Your task to perform on an android device: uninstall "PlayWell" Image 0: 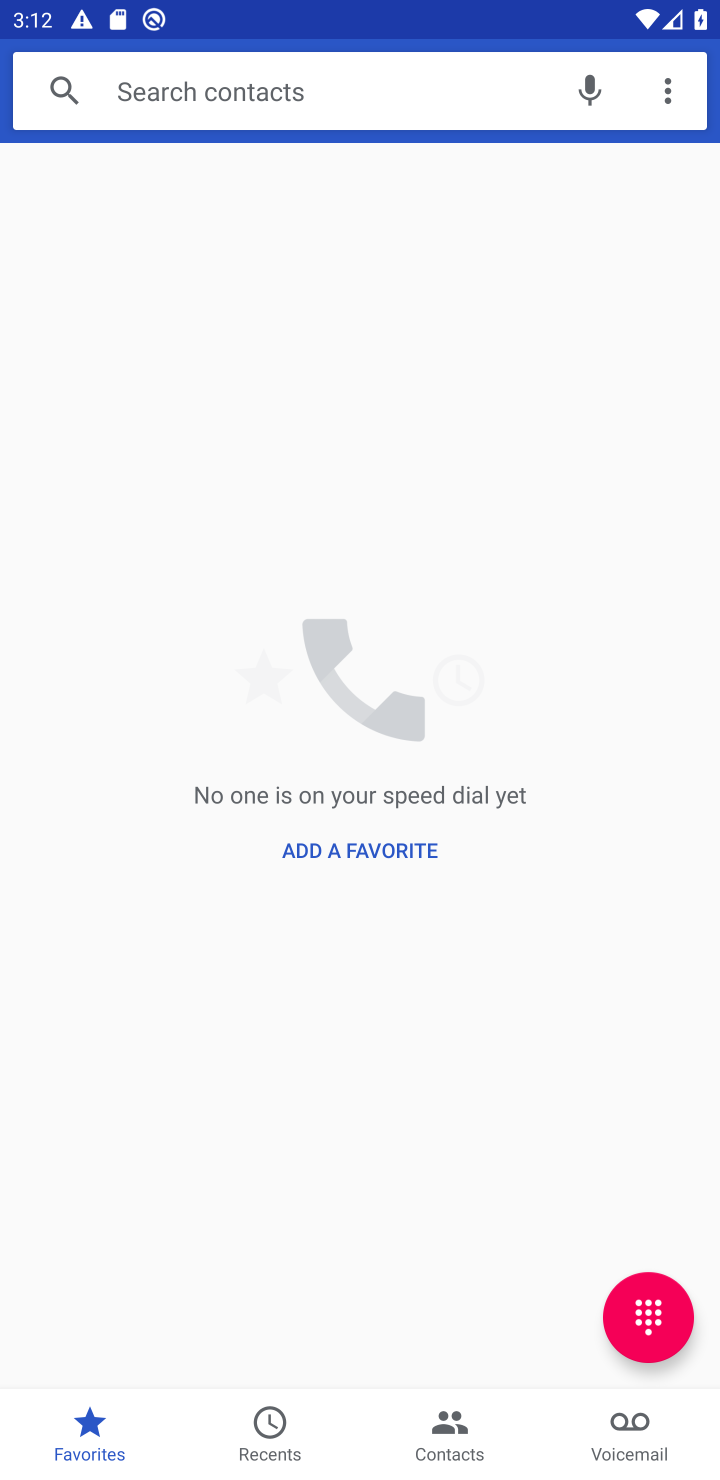
Step 0: press home button
Your task to perform on an android device: uninstall "PlayWell" Image 1: 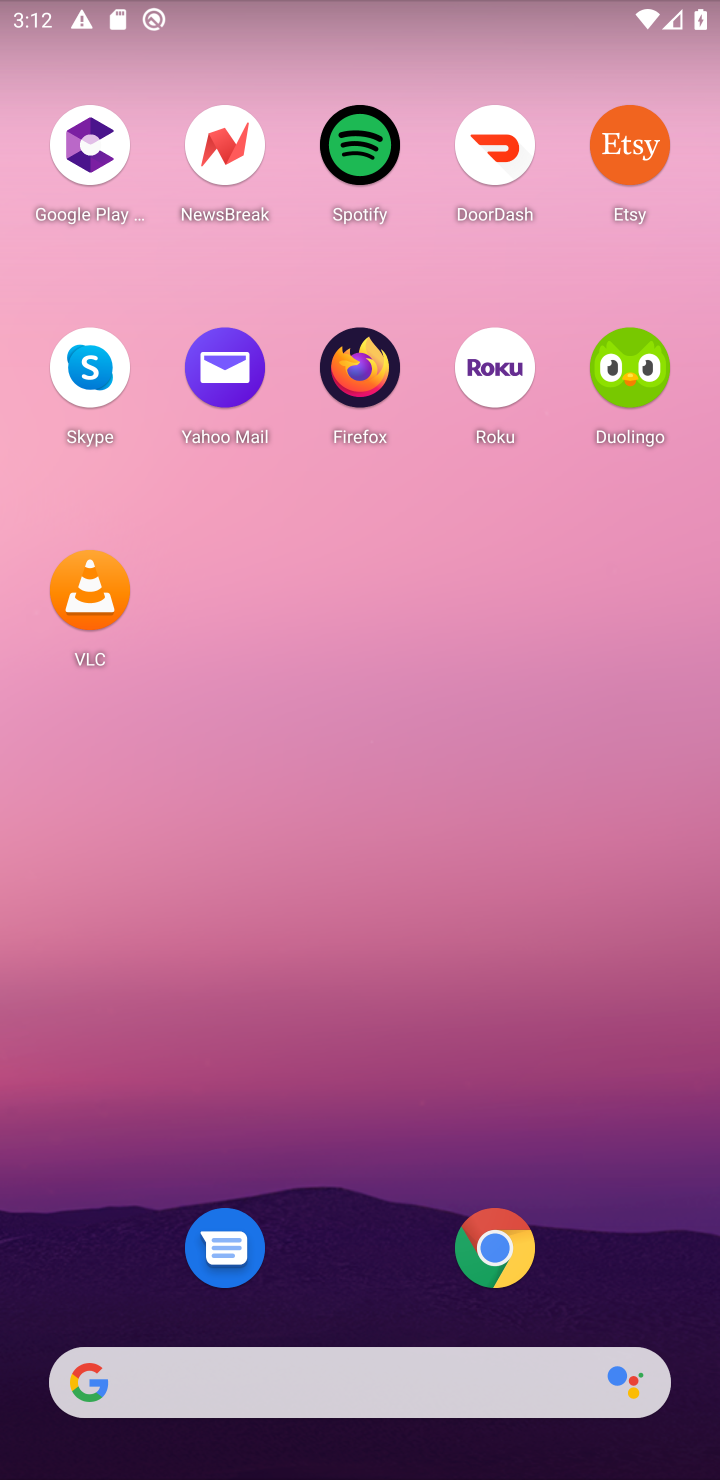
Step 1: drag from (348, 721) to (353, 299)
Your task to perform on an android device: uninstall "PlayWell" Image 2: 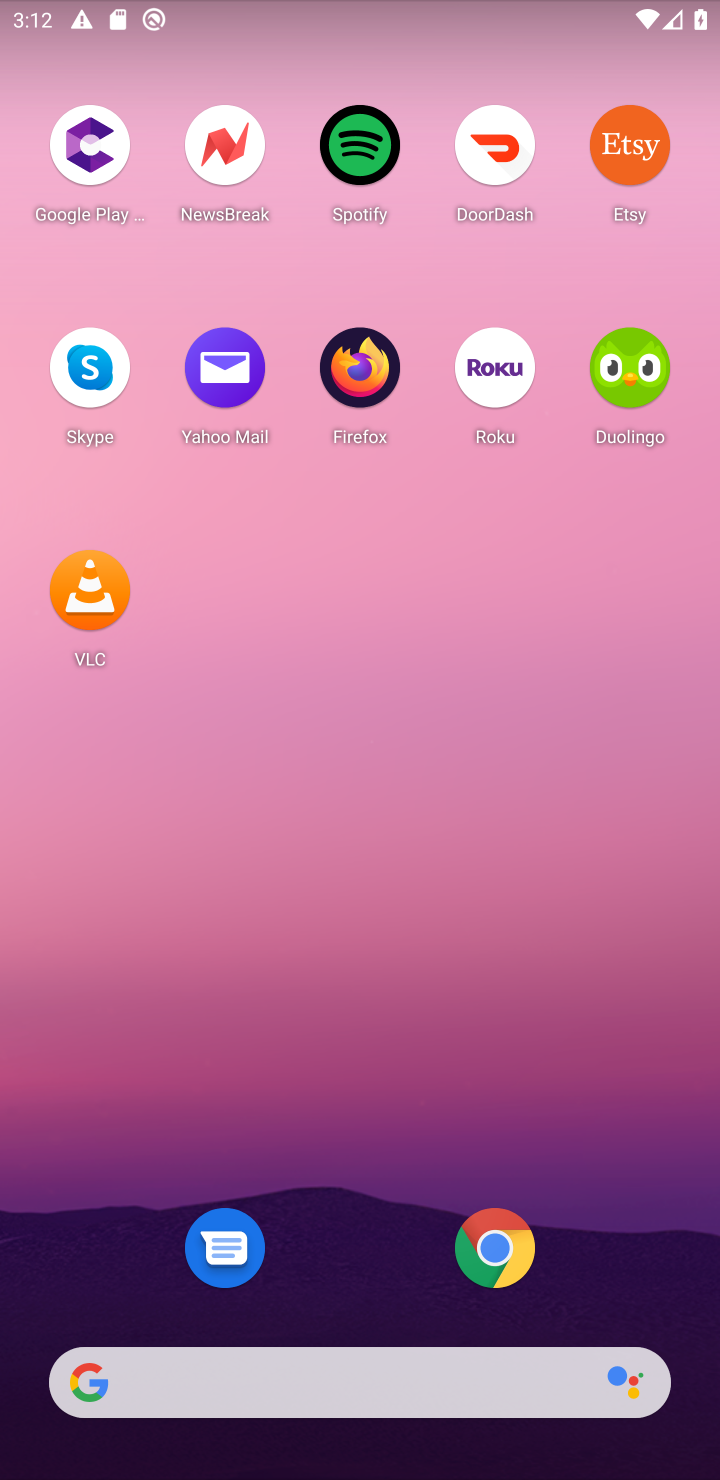
Step 2: drag from (365, 1252) to (349, 309)
Your task to perform on an android device: uninstall "PlayWell" Image 3: 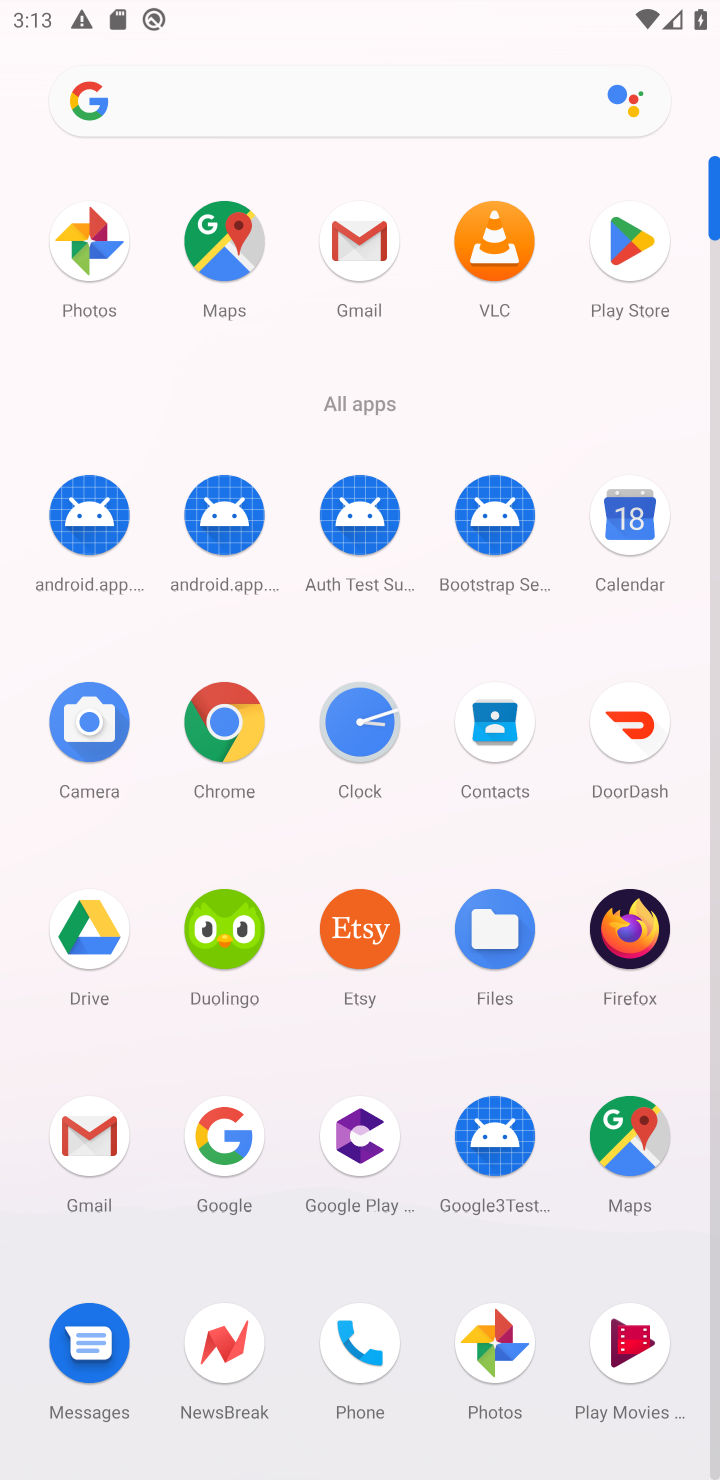
Step 3: click (632, 242)
Your task to perform on an android device: uninstall "PlayWell" Image 4: 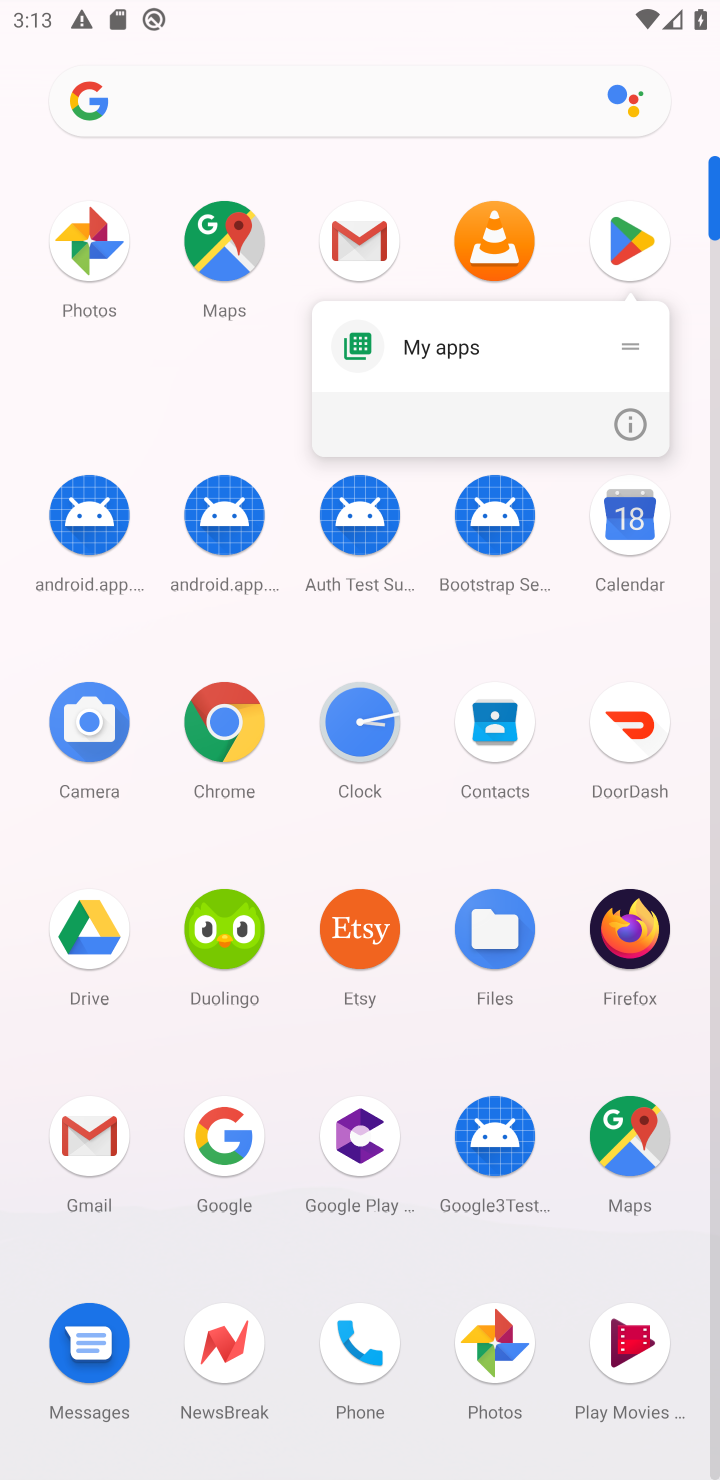
Step 4: click (632, 242)
Your task to perform on an android device: uninstall "PlayWell" Image 5: 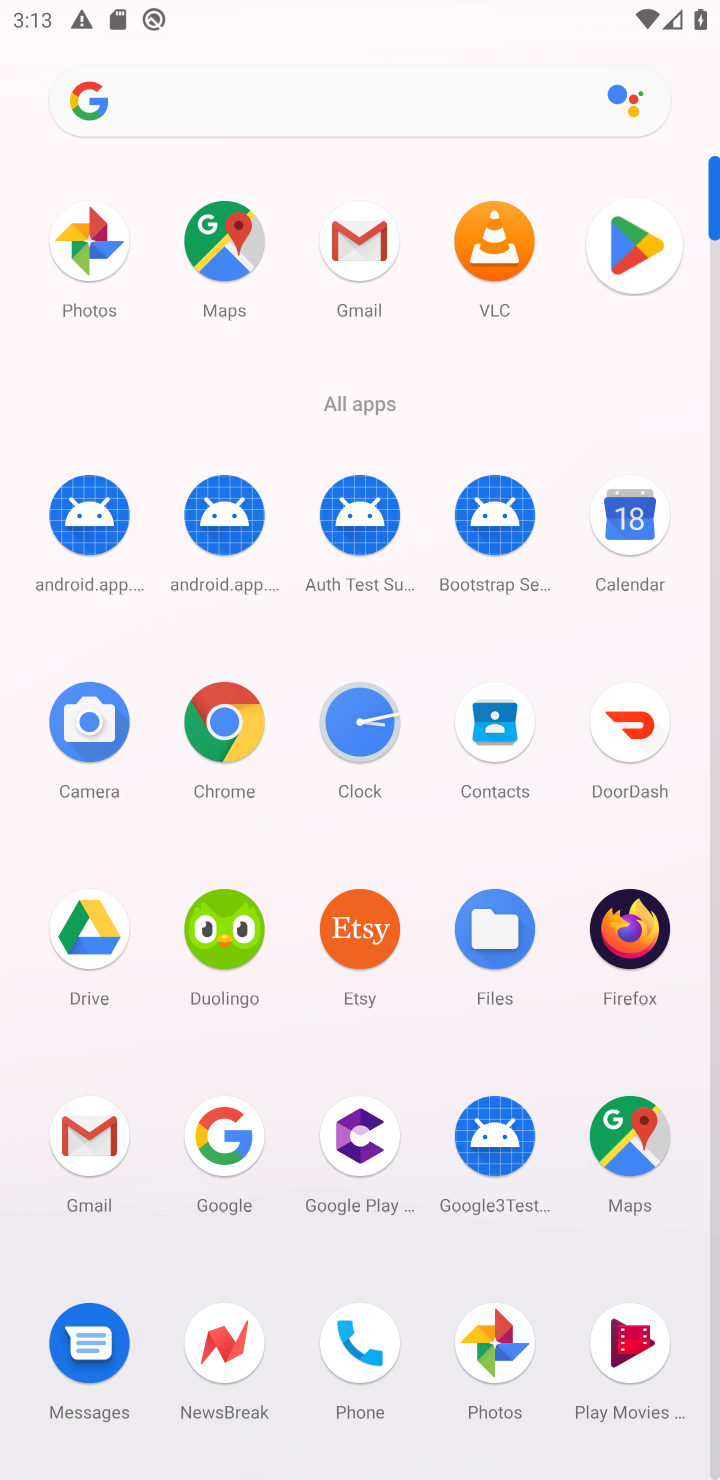
Step 5: click (630, 244)
Your task to perform on an android device: uninstall "PlayWell" Image 6: 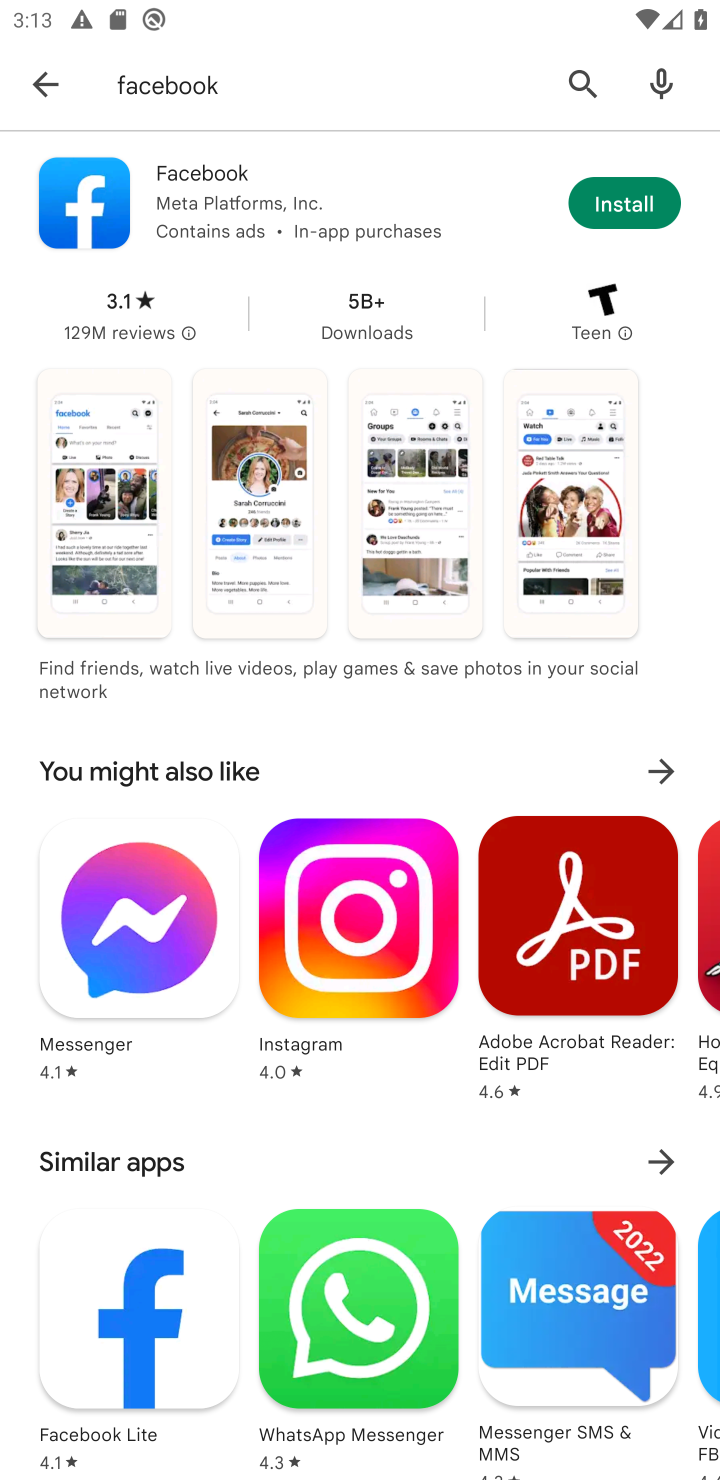
Step 6: click (576, 86)
Your task to perform on an android device: uninstall "PlayWell" Image 7: 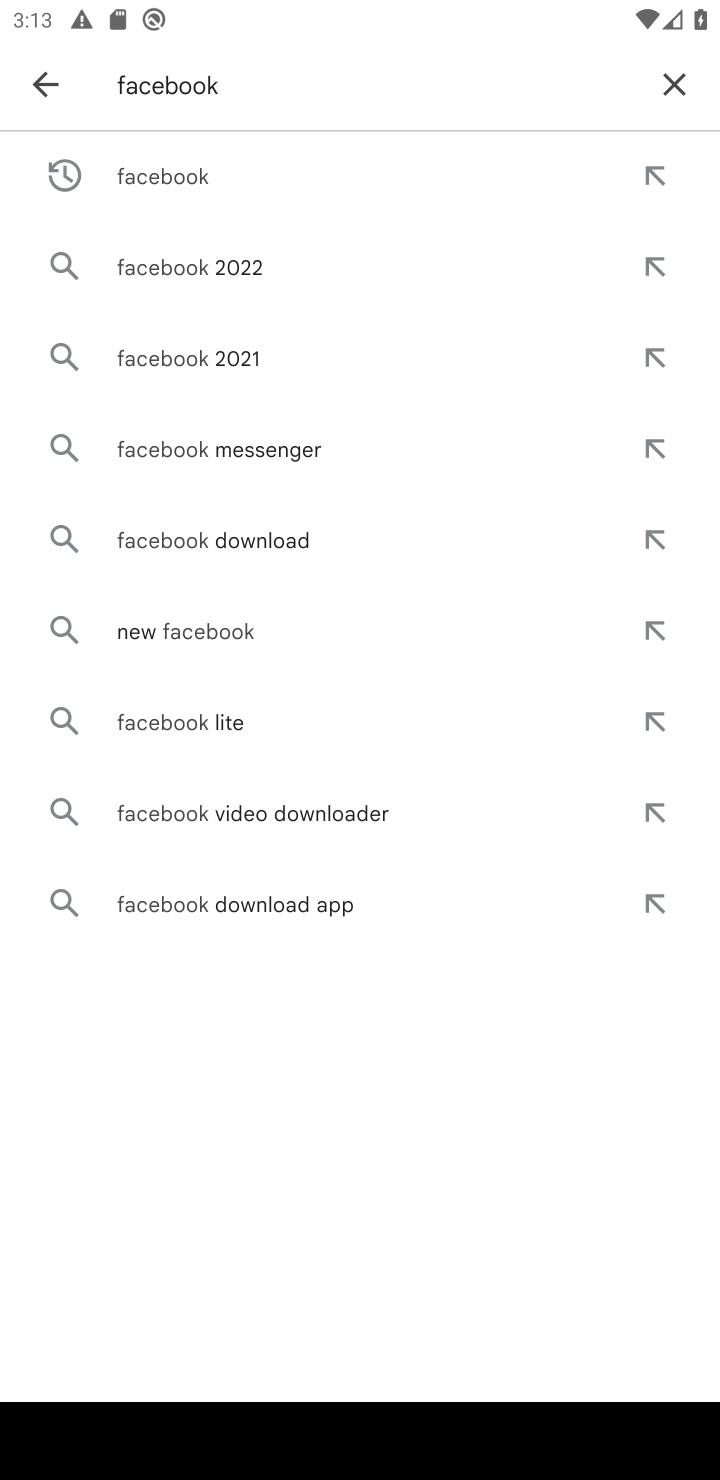
Step 7: click (672, 75)
Your task to perform on an android device: uninstall "PlayWell" Image 8: 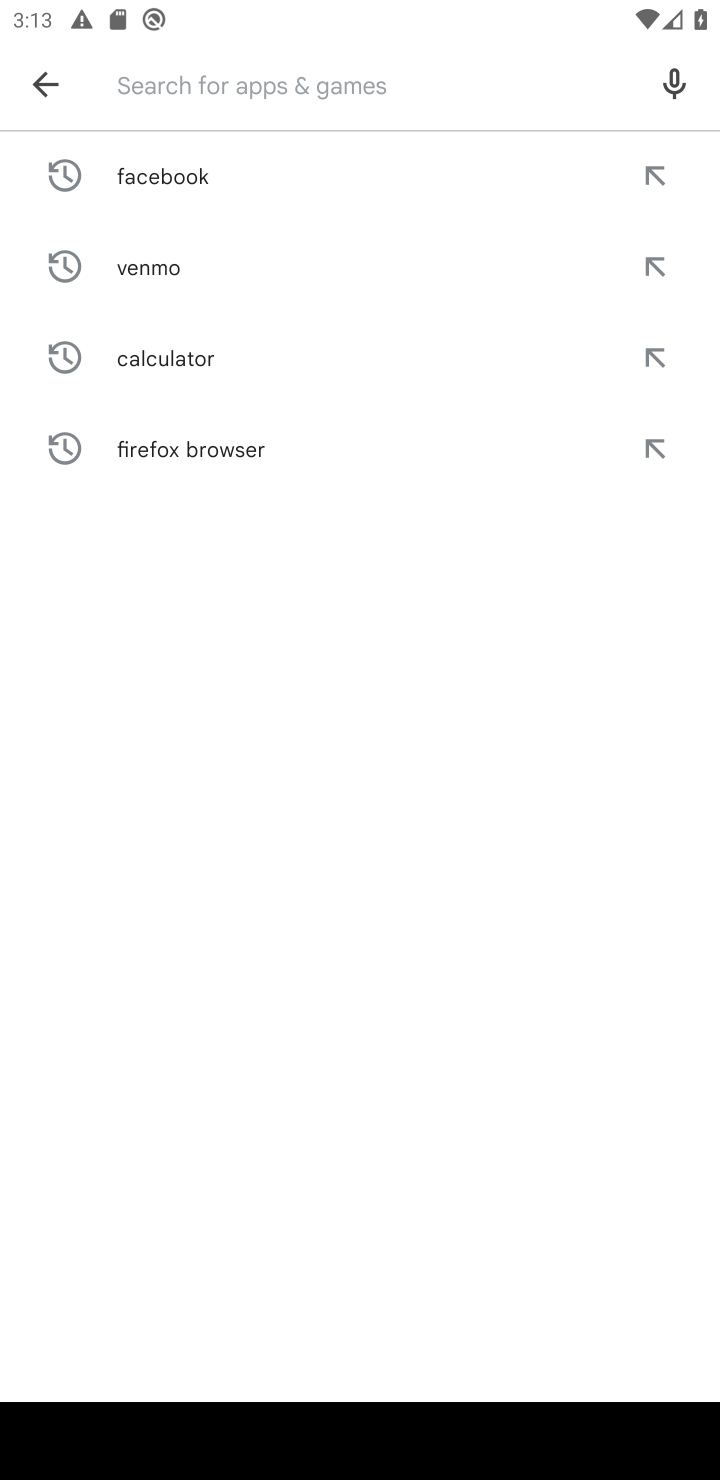
Step 8: type "PlayWell"
Your task to perform on an android device: uninstall "PlayWell" Image 9: 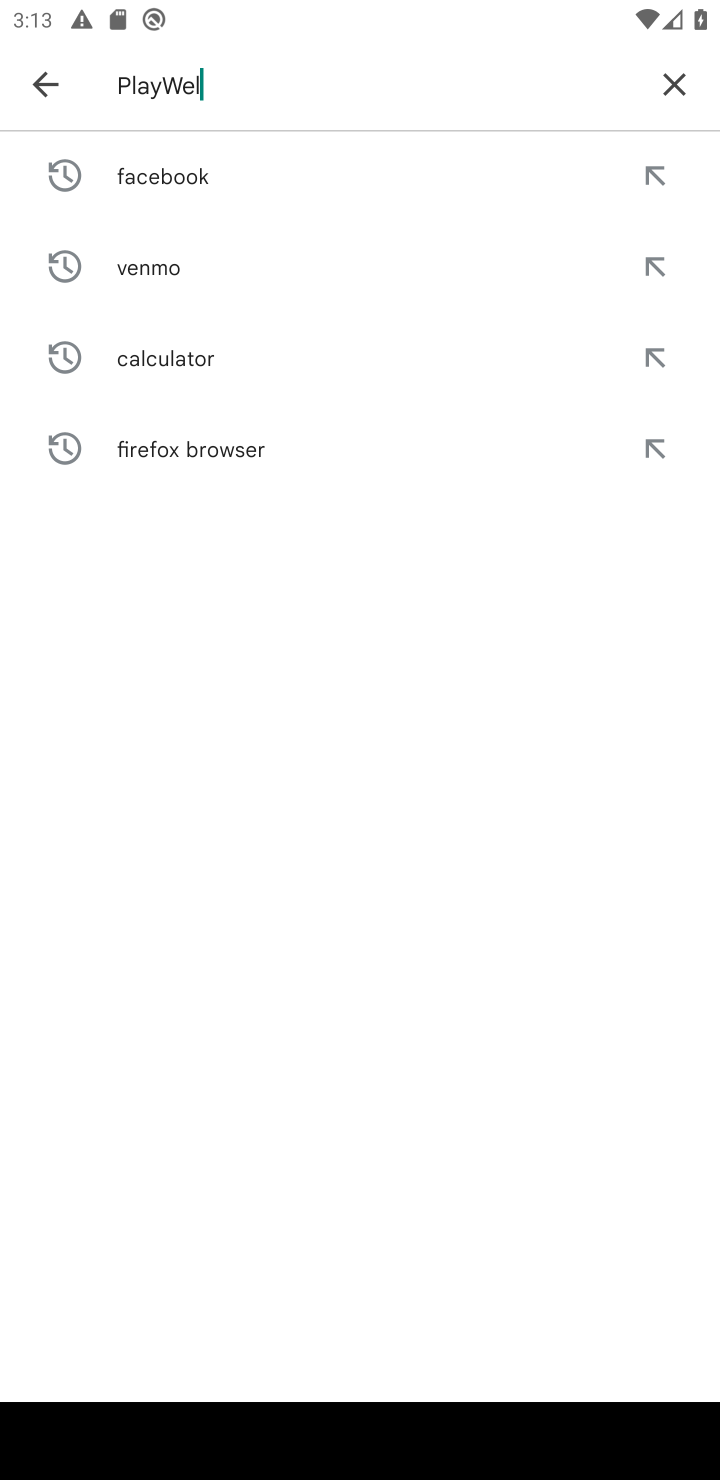
Step 9: type ""
Your task to perform on an android device: uninstall "PlayWell" Image 10: 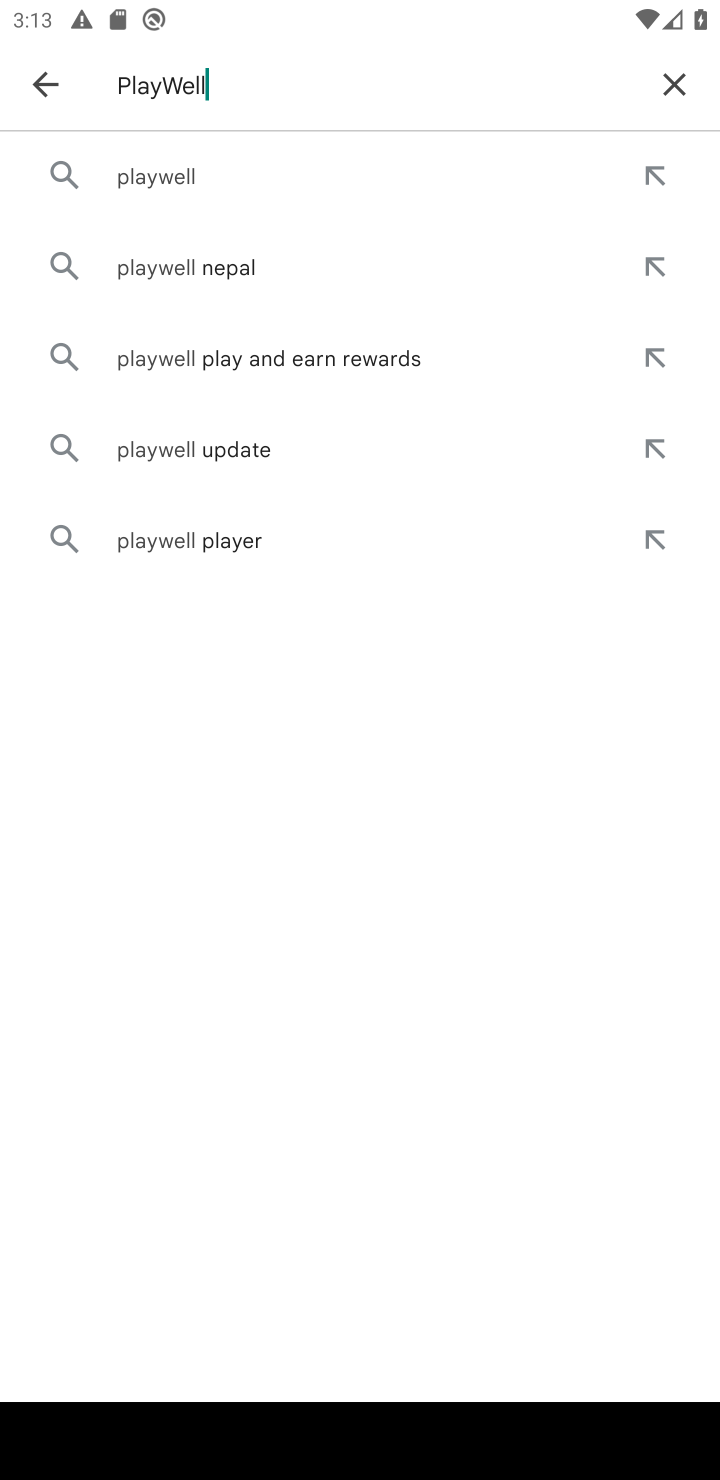
Step 10: click (154, 172)
Your task to perform on an android device: uninstall "PlayWell" Image 11: 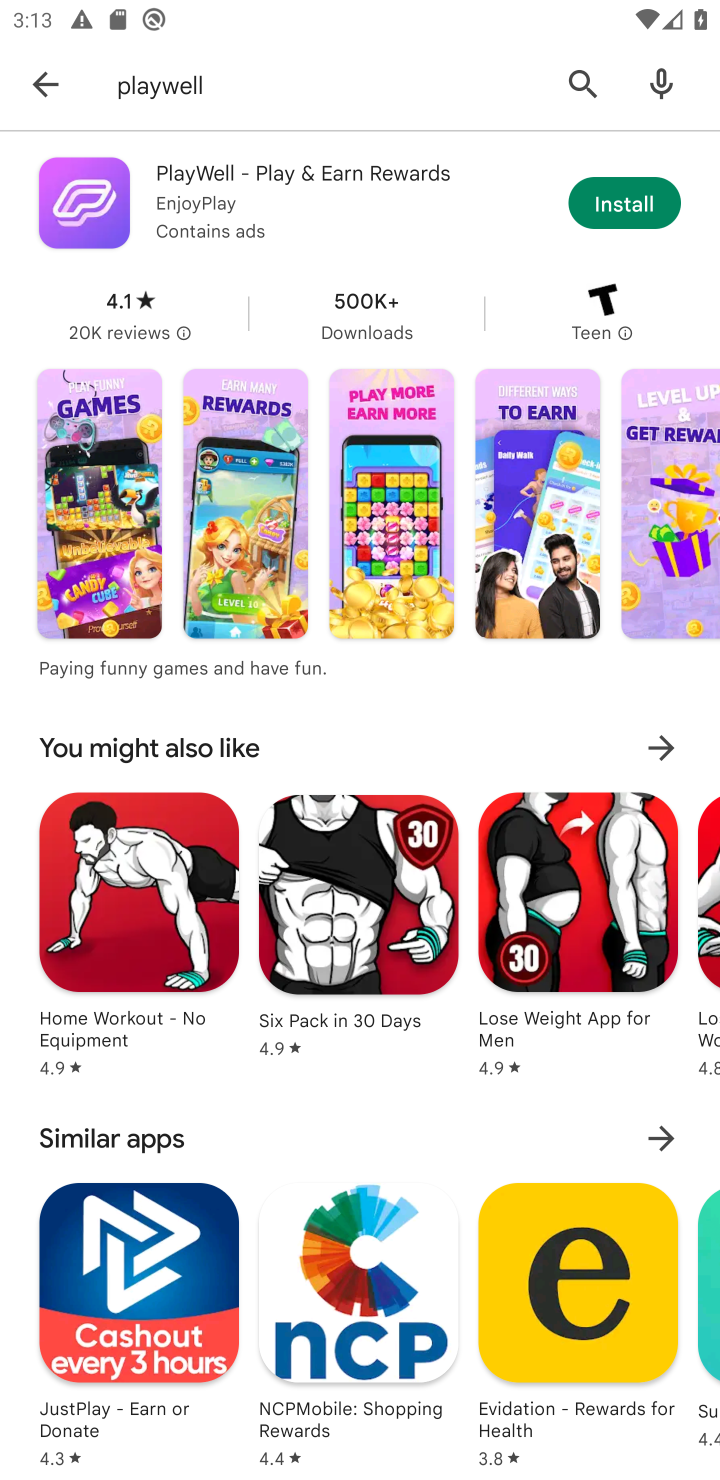
Step 11: task complete